Your task to perform on an android device: Search for vegetarian restaurants on Maps Image 0: 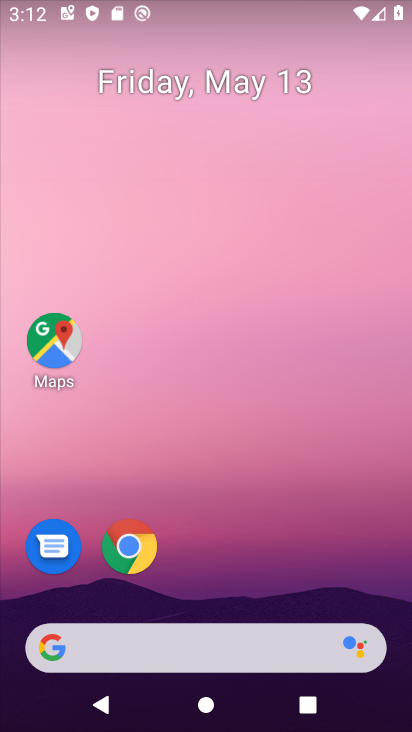
Step 0: click (45, 337)
Your task to perform on an android device: Search for vegetarian restaurants on Maps Image 1: 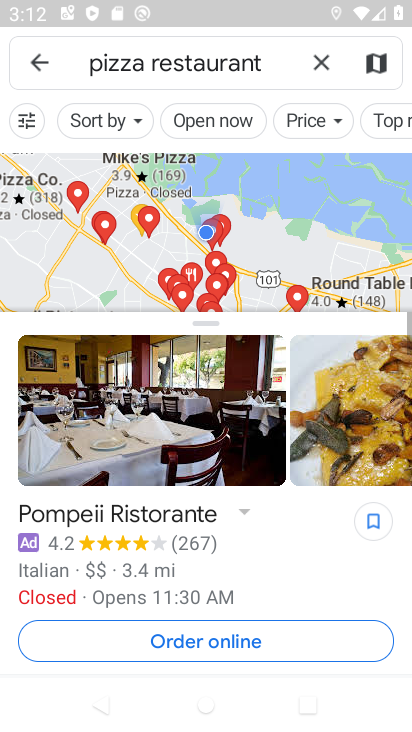
Step 1: click (327, 66)
Your task to perform on an android device: Search for vegetarian restaurants on Maps Image 2: 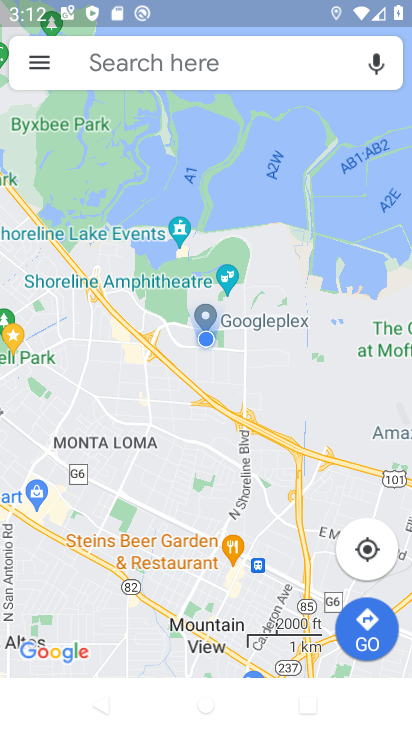
Step 2: click (146, 62)
Your task to perform on an android device: Search for vegetarian restaurants on Maps Image 3: 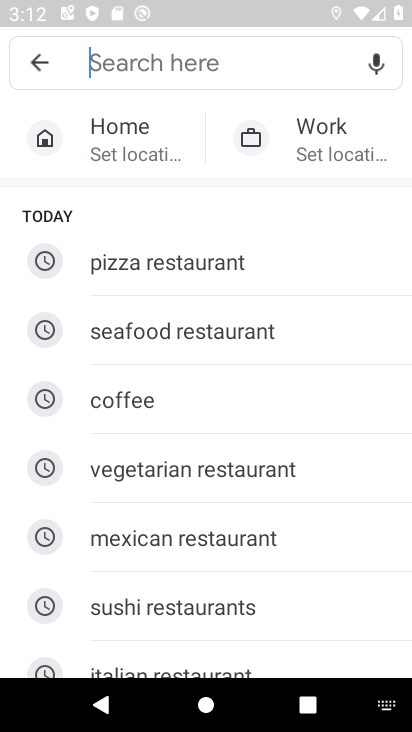
Step 3: click (325, 482)
Your task to perform on an android device: Search for vegetarian restaurants on Maps Image 4: 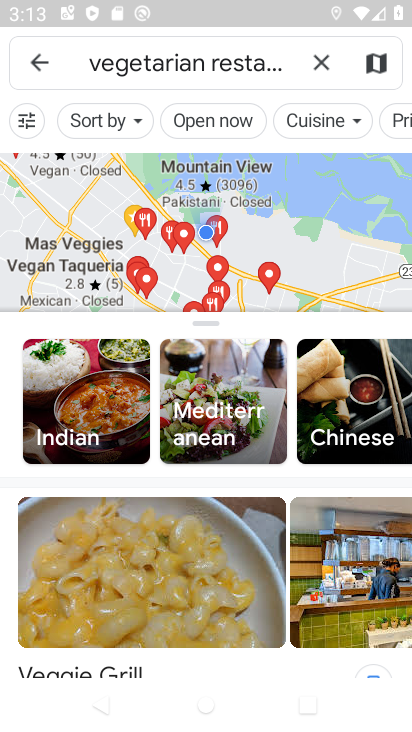
Step 4: task complete